Your task to perform on an android device: create a new album in the google photos Image 0: 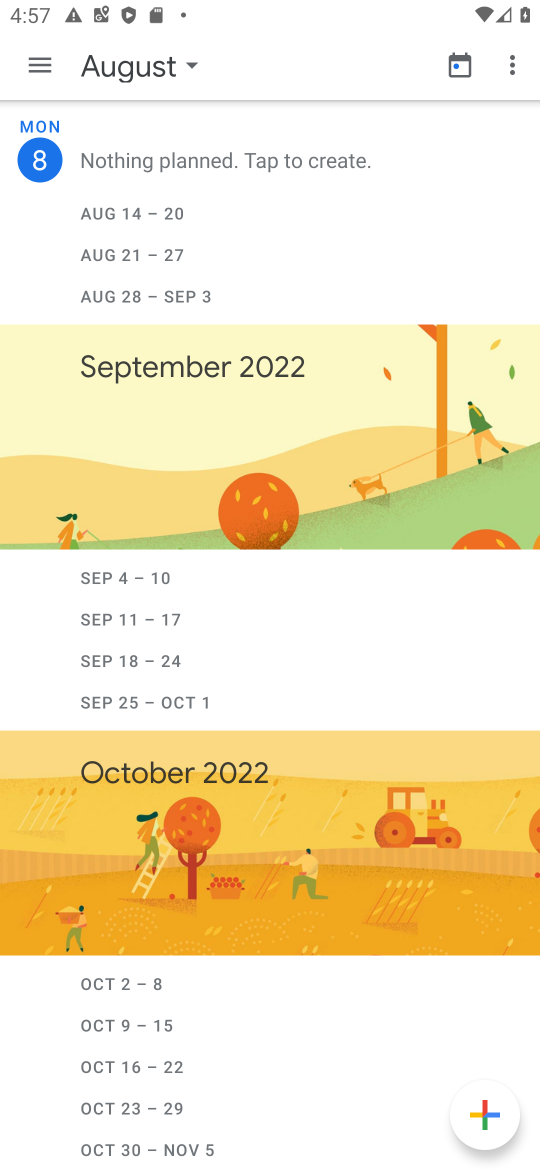
Step 0: press home button
Your task to perform on an android device: create a new album in the google photos Image 1: 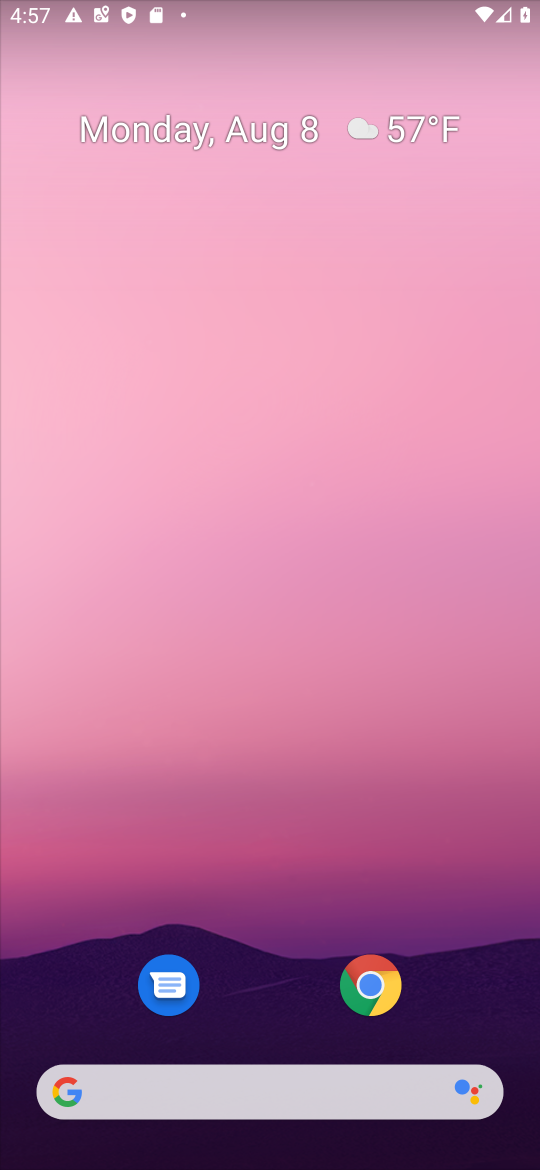
Step 1: drag from (279, 717) to (205, 52)
Your task to perform on an android device: create a new album in the google photos Image 2: 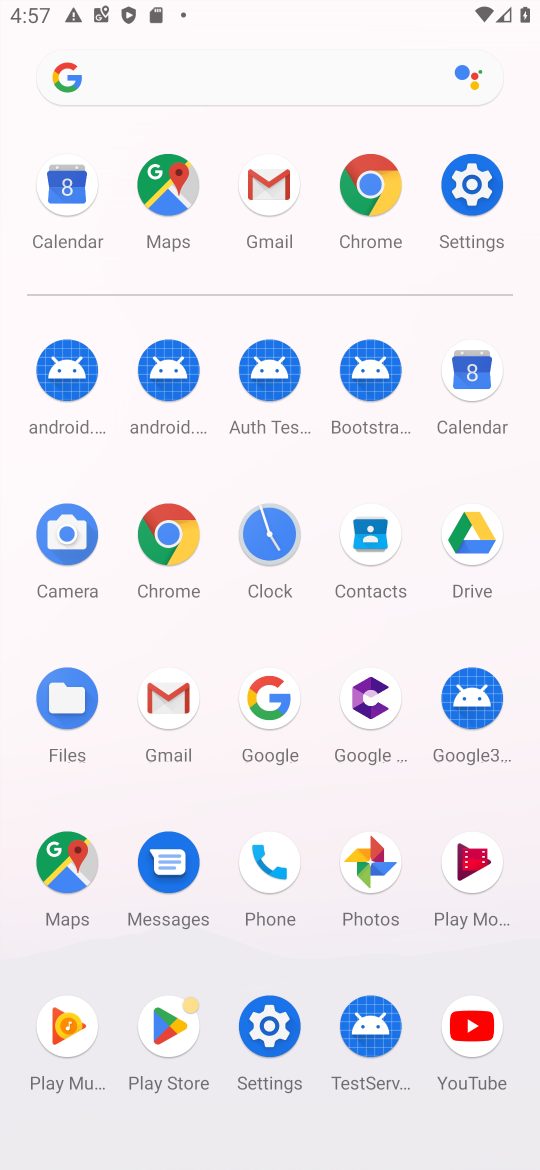
Step 2: click (363, 864)
Your task to perform on an android device: create a new album in the google photos Image 3: 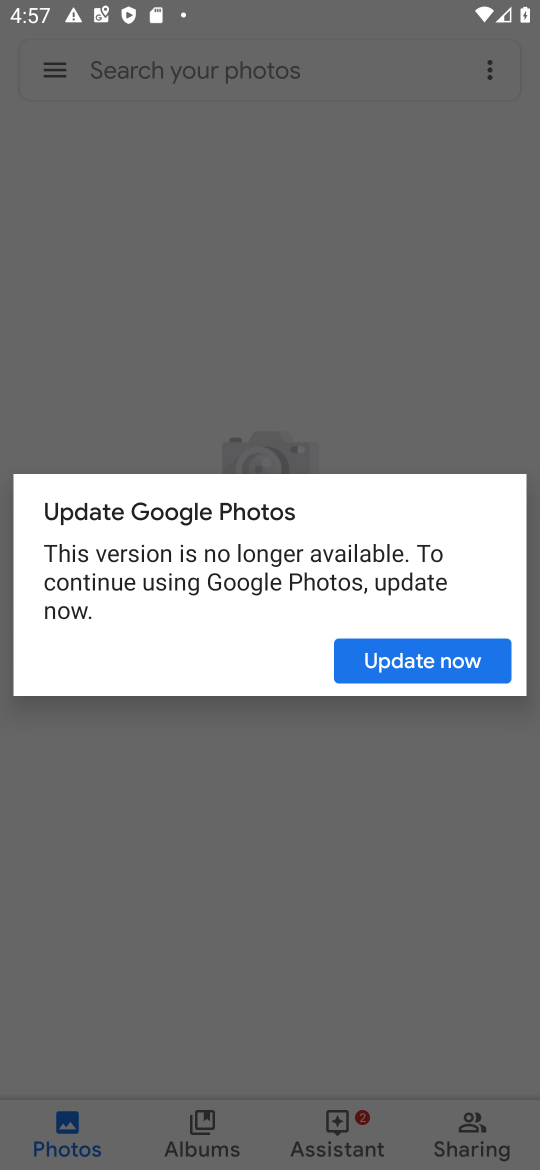
Step 3: task complete